Your task to perform on an android device: move a message to another label in the gmail app Image 0: 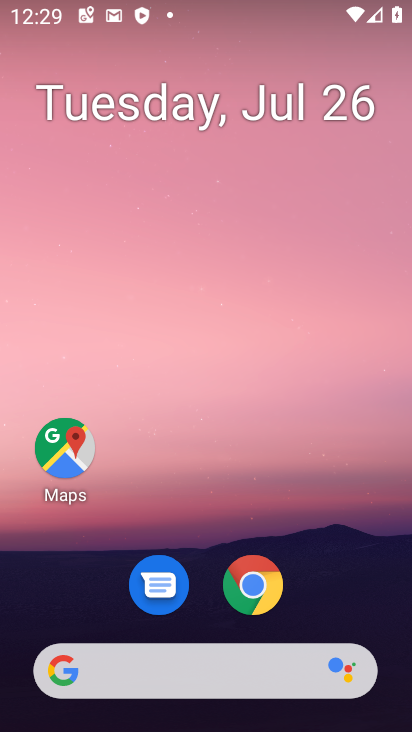
Step 0: drag from (165, 629) to (284, 78)
Your task to perform on an android device: move a message to another label in the gmail app Image 1: 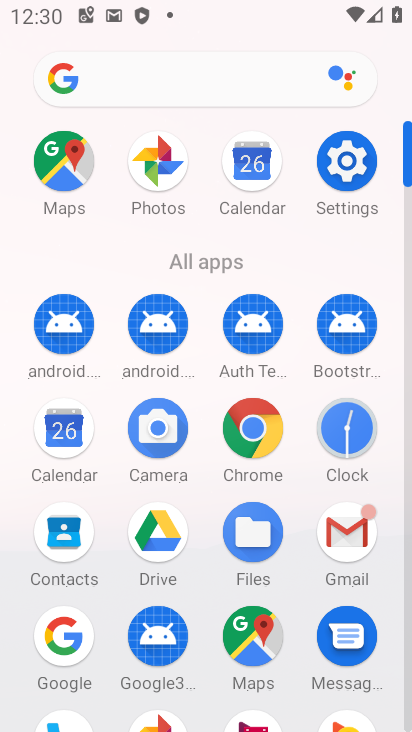
Step 1: click (341, 536)
Your task to perform on an android device: move a message to another label in the gmail app Image 2: 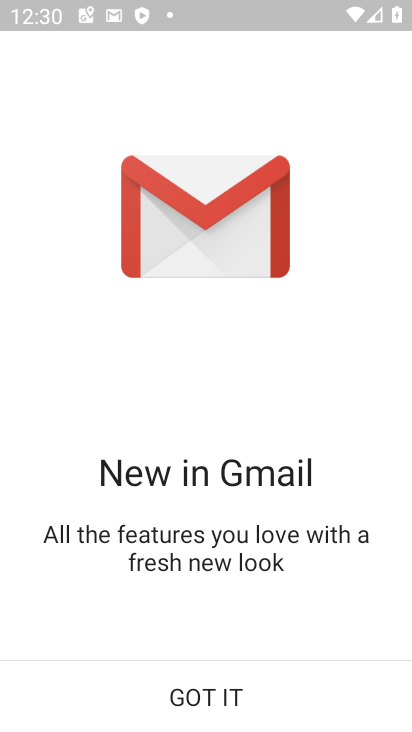
Step 2: click (192, 693)
Your task to perform on an android device: move a message to another label in the gmail app Image 3: 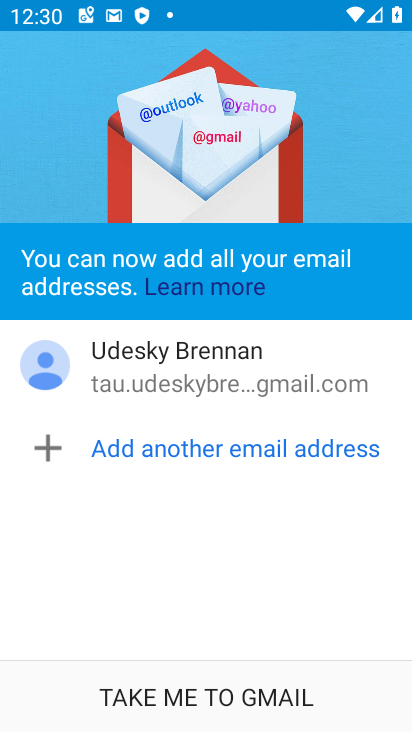
Step 3: click (225, 693)
Your task to perform on an android device: move a message to another label in the gmail app Image 4: 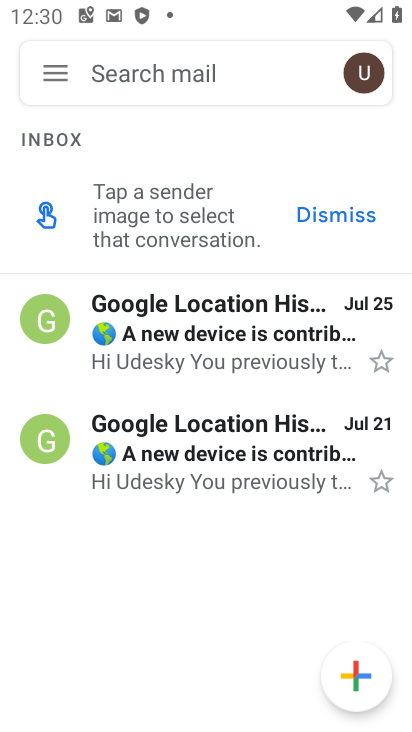
Step 4: click (191, 342)
Your task to perform on an android device: move a message to another label in the gmail app Image 5: 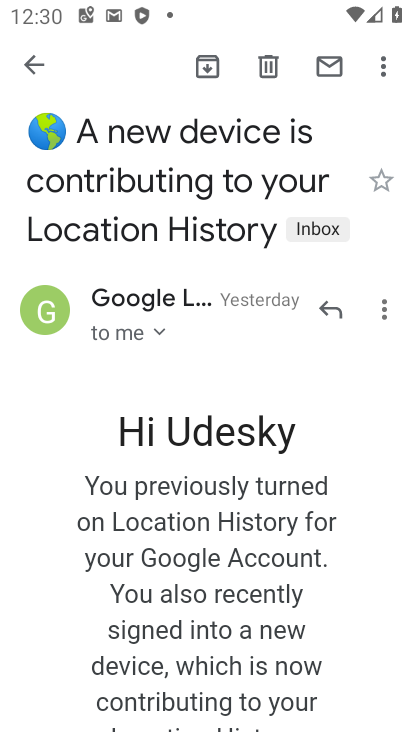
Step 5: click (330, 223)
Your task to perform on an android device: move a message to another label in the gmail app Image 6: 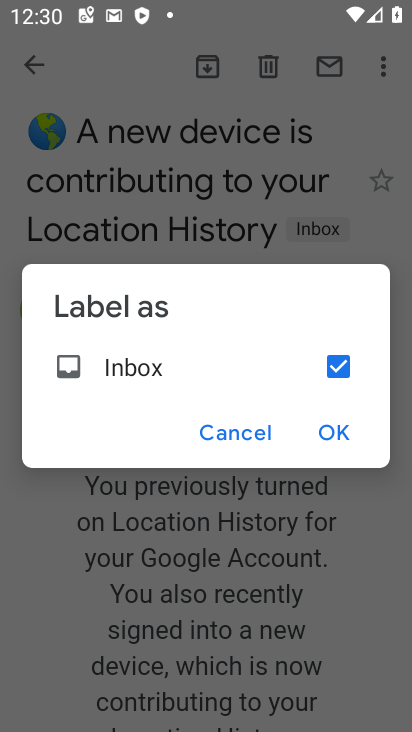
Step 6: task complete